Your task to perform on an android device: Show me the alarms in the clock app Image 0: 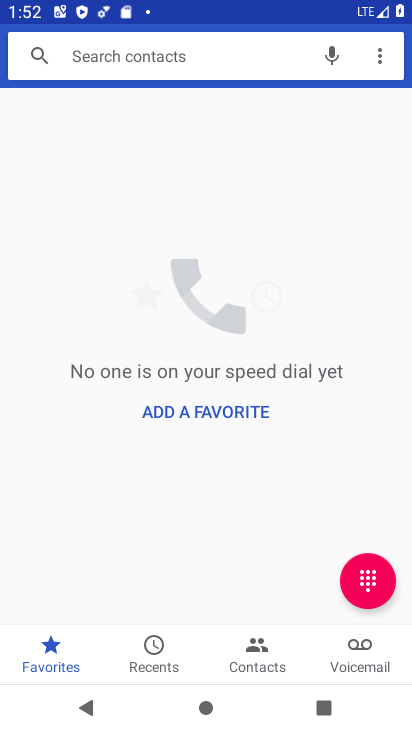
Step 0: press home button
Your task to perform on an android device: Show me the alarms in the clock app Image 1: 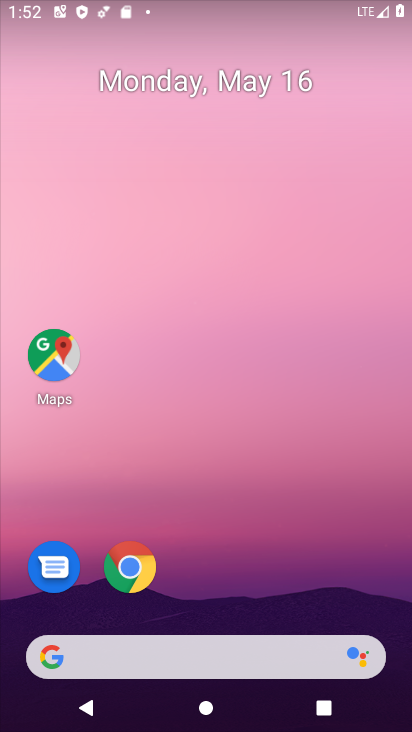
Step 1: drag from (215, 591) to (290, 150)
Your task to perform on an android device: Show me the alarms in the clock app Image 2: 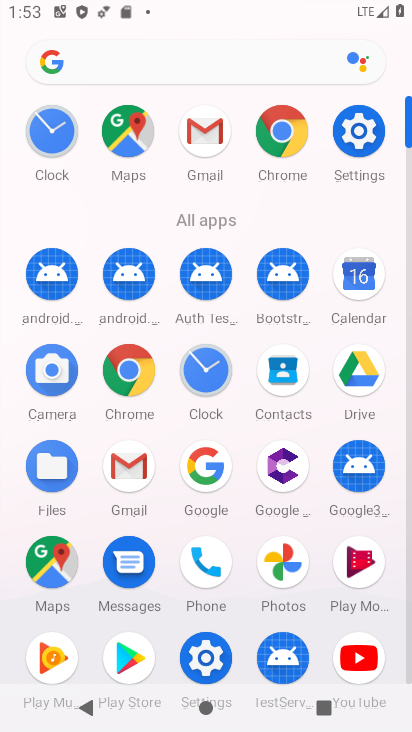
Step 2: click (59, 126)
Your task to perform on an android device: Show me the alarms in the clock app Image 3: 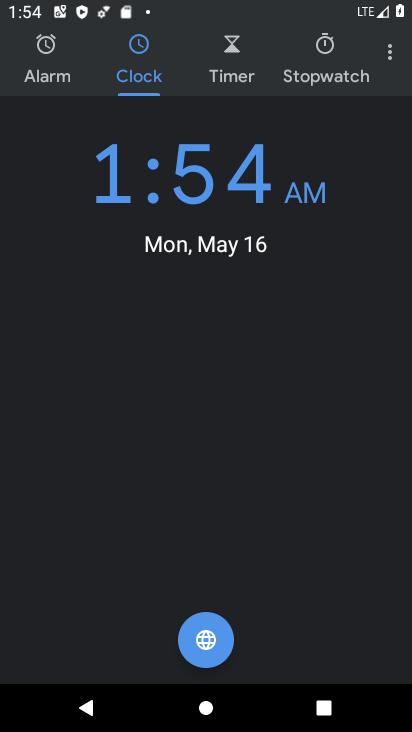
Step 3: click (67, 74)
Your task to perform on an android device: Show me the alarms in the clock app Image 4: 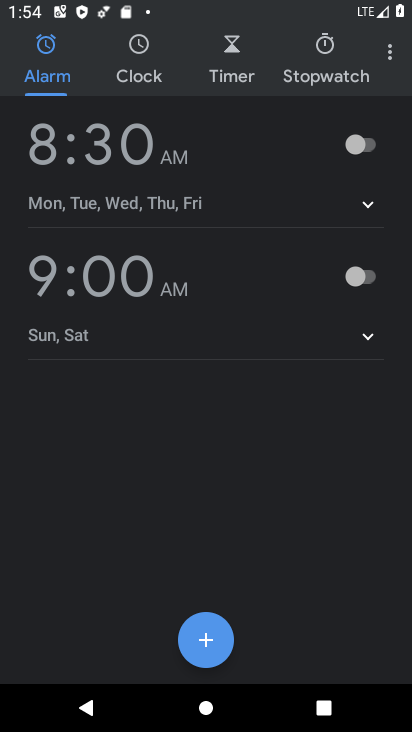
Step 4: task complete